Your task to perform on an android device: Open display settings Image 0: 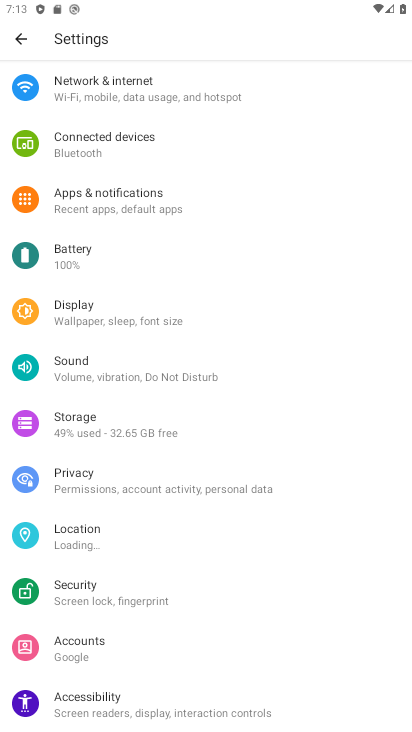
Step 0: press home button
Your task to perform on an android device: Open display settings Image 1: 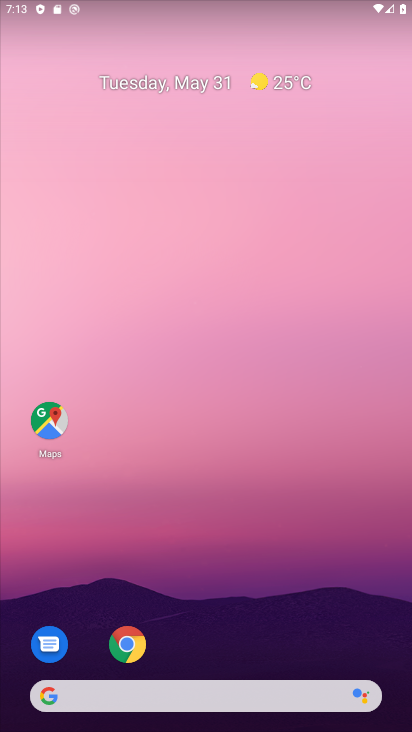
Step 1: drag from (223, 711) to (278, 232)
Your task to perform on an android device: Open display settings Image 2: 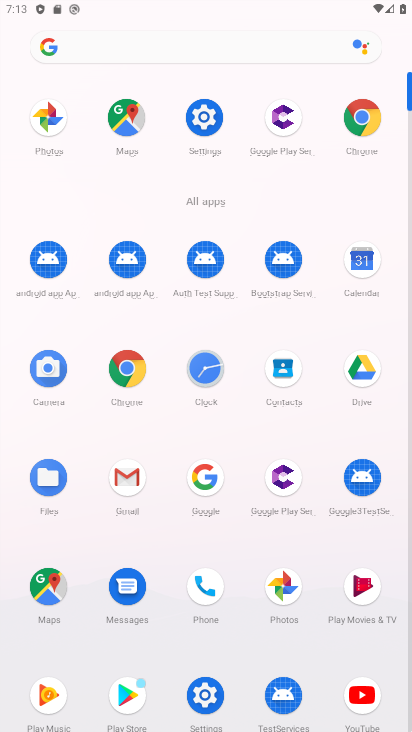
Step 2: click (201, 123)
Your task to perform on an android device: Open display settings Image 3: 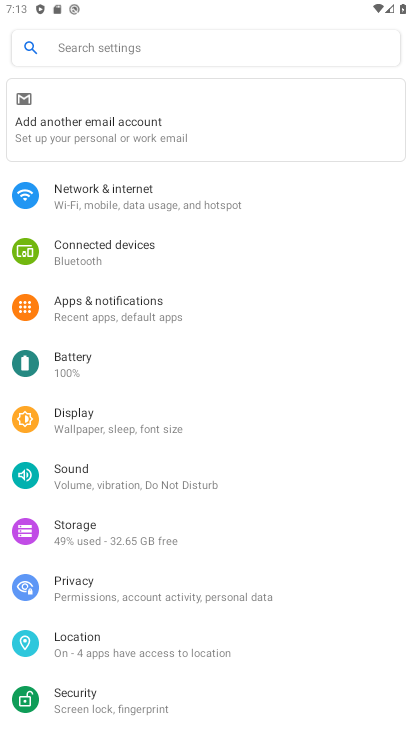
Step 3: click (101, 426)
Your task to perform on an android device: Open display settings Image 4: 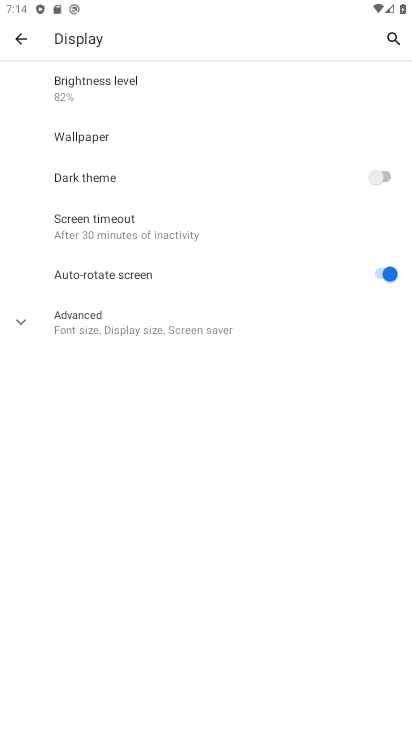
Step 4: task complete